Your task to perform on an android device: Go to notification settings Image 0: 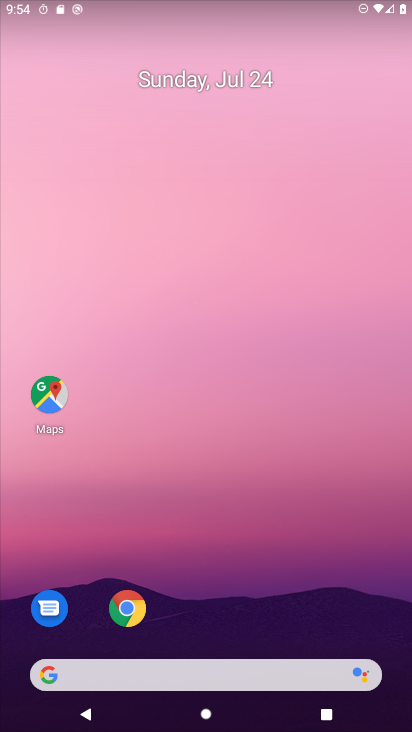
Step 0: drag from (174, 642) to (219, 275)
Your task to perform on an android device: Go to notification settings Image 1: 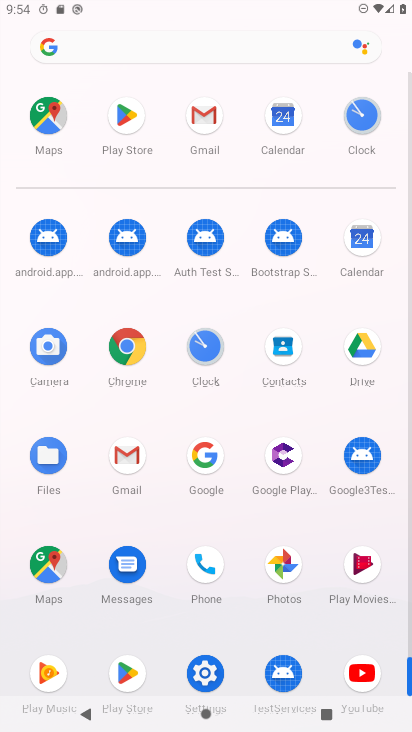
Step 1: click (207, 666)
Your task to perform on an android device: Go to notification settings Image 2: 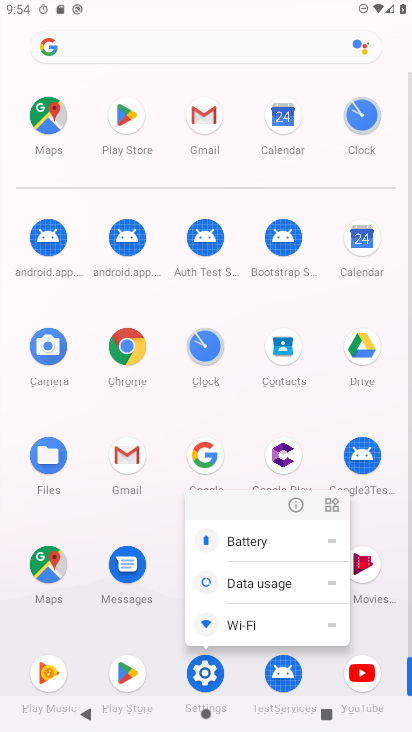
Step 2: click (297, 506)
Your task to perform on an android device: Go to notification settings Image 3: 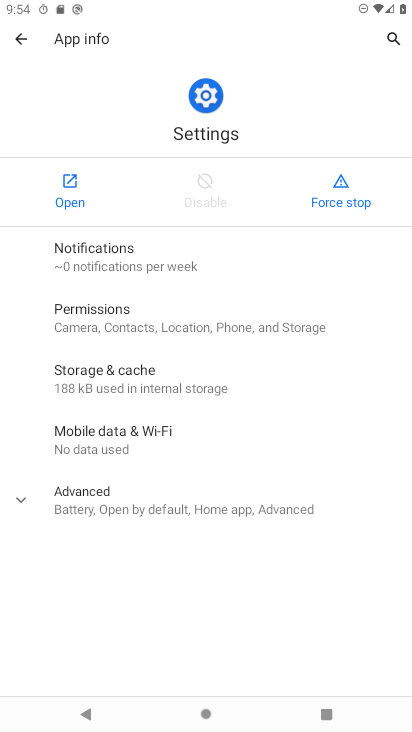
Step 3: click (62, 178)
Your task to perform on an android device: Go to notification settings Image 4: 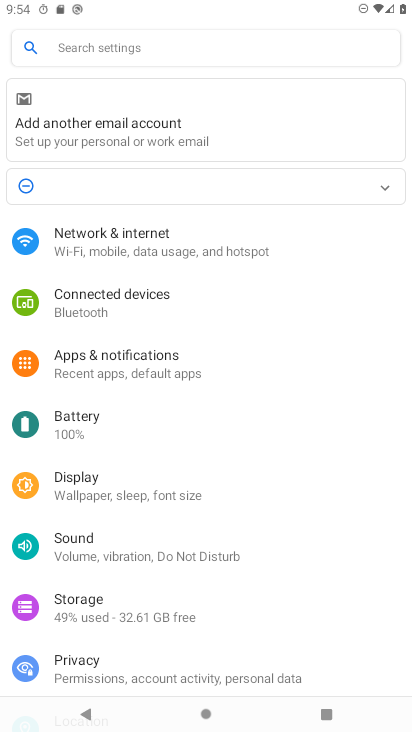
Step 4: click (149, 364)
Your task to perform on an android device: Go to notification settings Image 5: 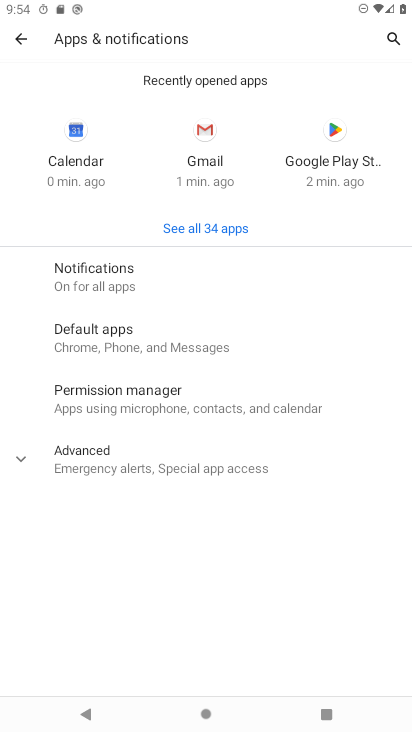
Step 5: click (186, 280)
Your task to perform on an android device: Go to notification settings Image 6: 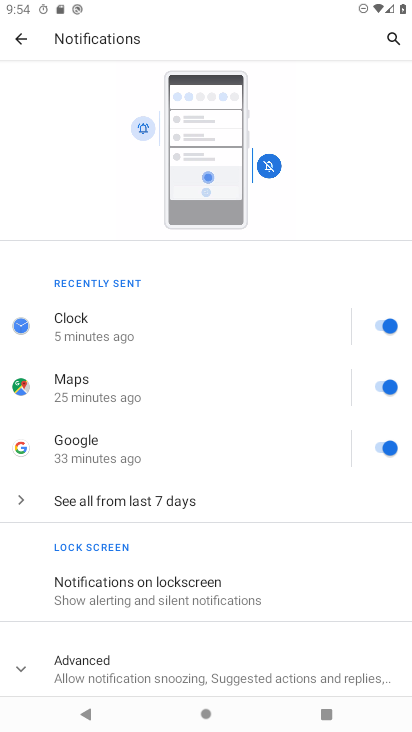
Step 6: drag from (166, 639) to (301, 266)
Your task to perform on an android device: Go to notification settings Image 7: 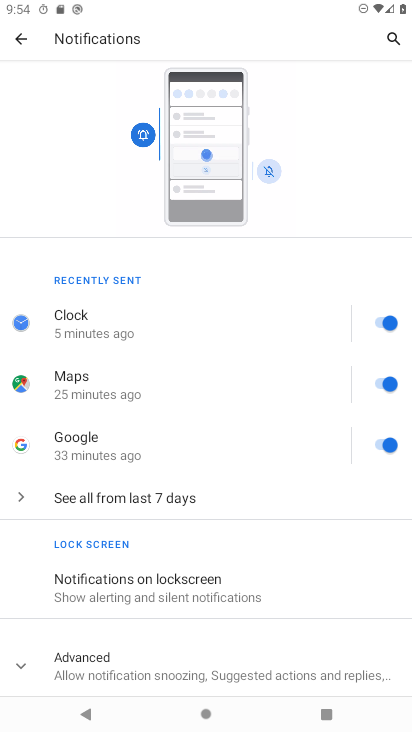
Step 7: drag from (154, 621) to (218, 297)
Your task to perform on an android device: Go to notification settings Image 8: 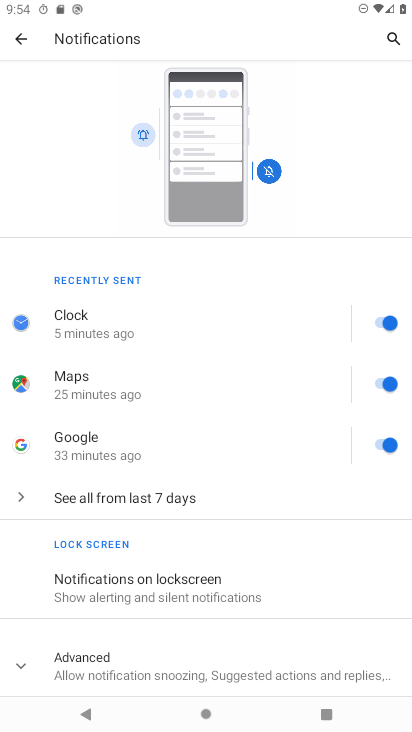
Step 8: click (129, 659)
Your task to perform on an android device: Go to notification settings Image 9: 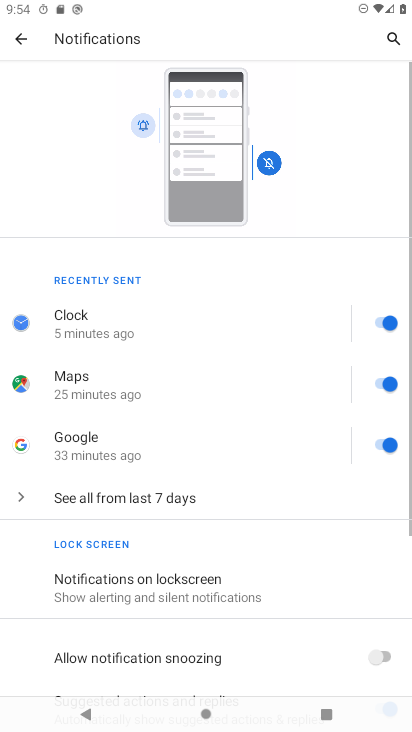
Step 9: task complete